Your task to perform on an android device: Open accessibility settings Image 0: 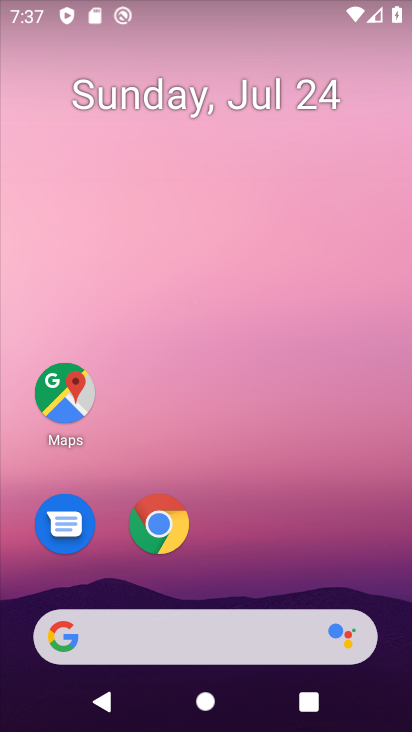
Step 0: drag from (237, 573) to (251, 41)
Your task to perform on an android device: Open accessibility settings Image 1: 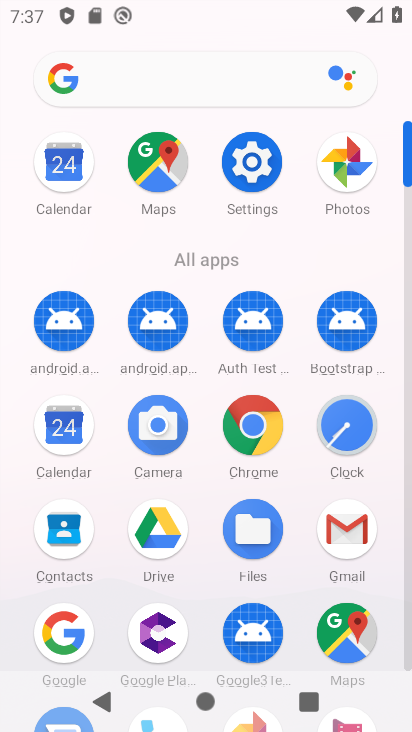
Step 1: click (249, 163)
Your task to perform on an android device: Open accessibility settings Image 2: 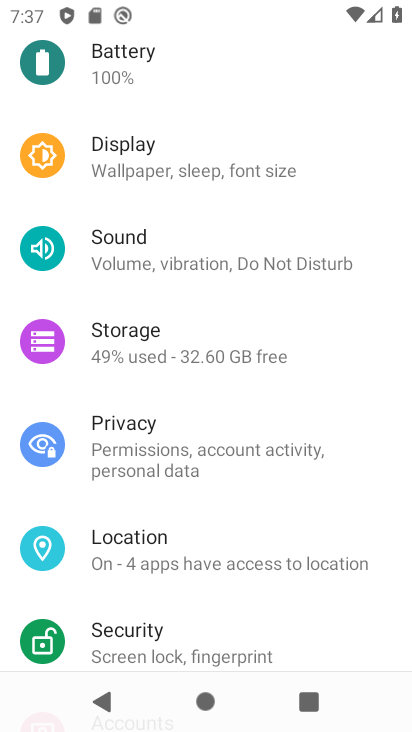
Step 2: drag from (238, 600) to (263, 45)
Your task to perform on an android device: Open accessibility settings Image 3: 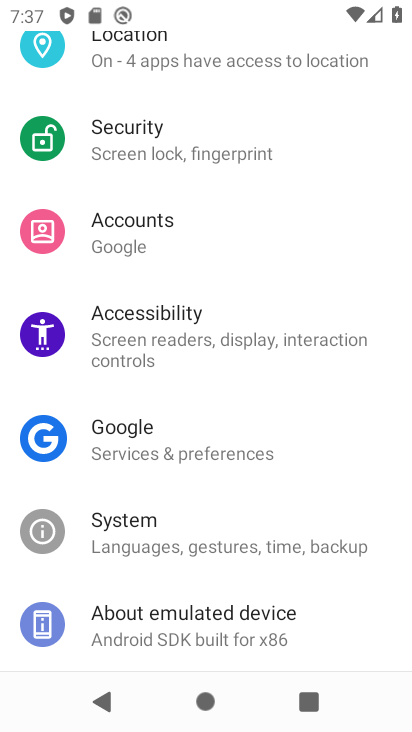
Step 3: drag from (209, 487) to (227, 413)
Your task to perform on an android device: Open accessibility settings Image 4: 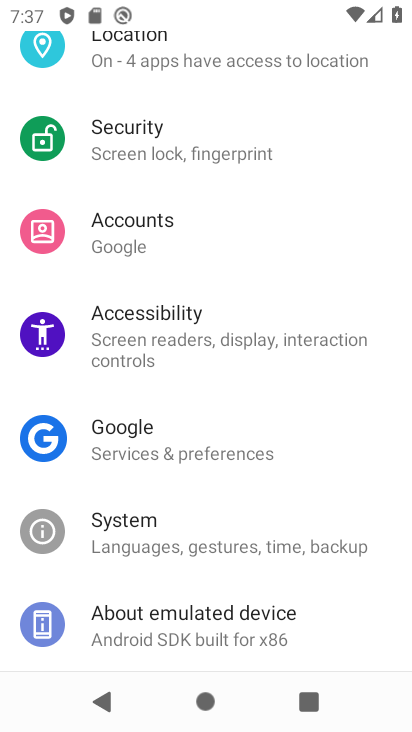
Step 4: click (226, 335)
Your task to perform on an android device: Open accessibility settings Image 5: 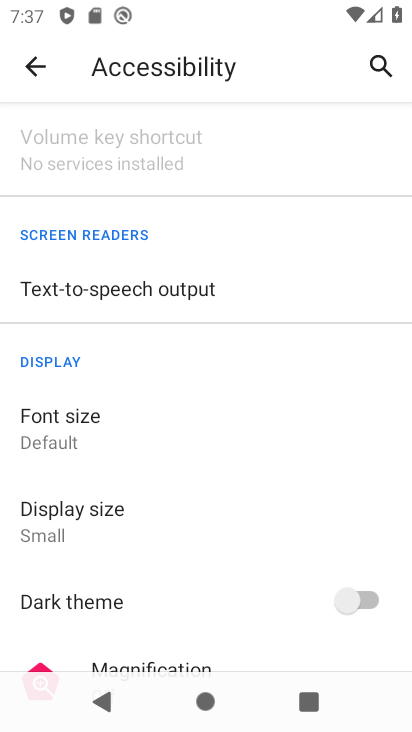
Step 5: task complete